Your task to perform on an android device: uninstall "Firefox Browser" Image 0: 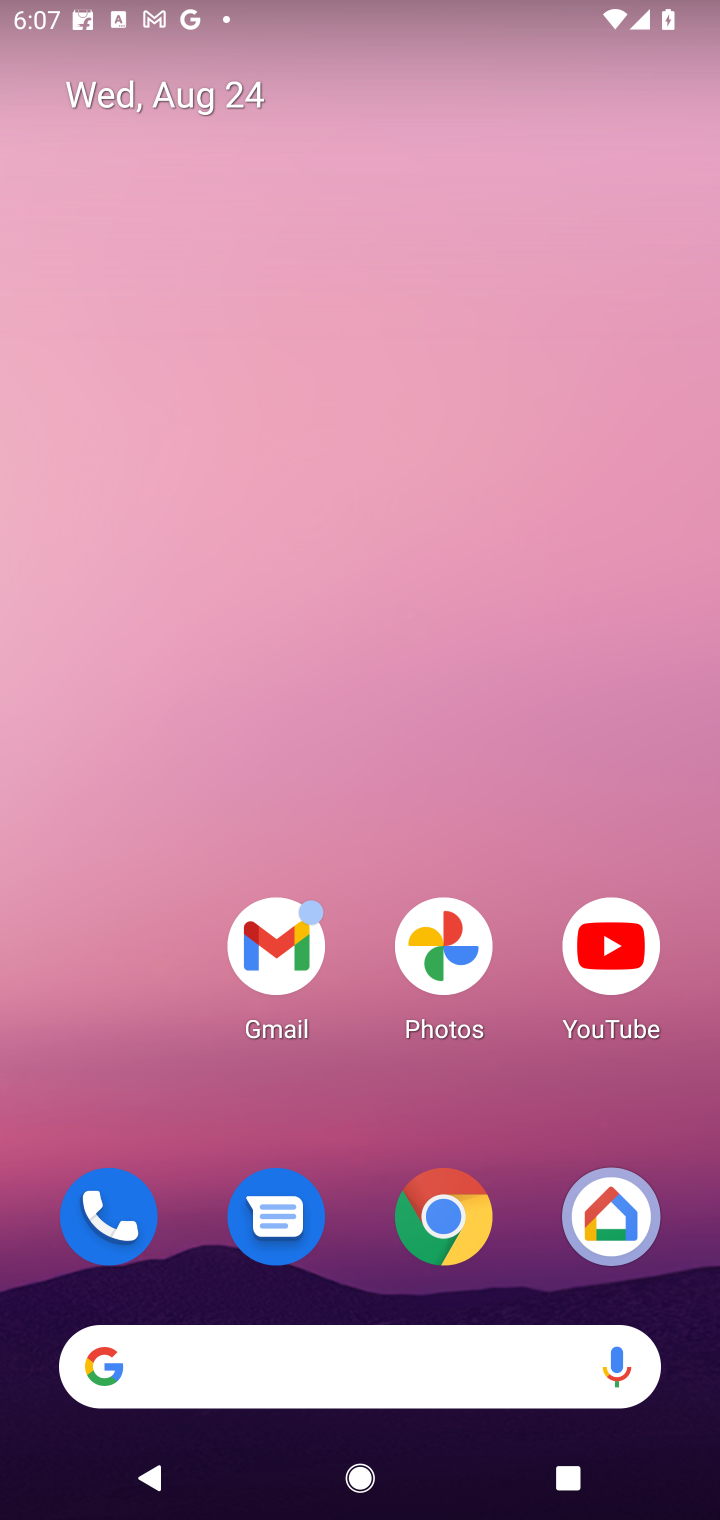
Step 0: drag from (358, 1090) to (371, 56)
Your task to perform on an android device: uninstall "Firefox Browser" Image 1: 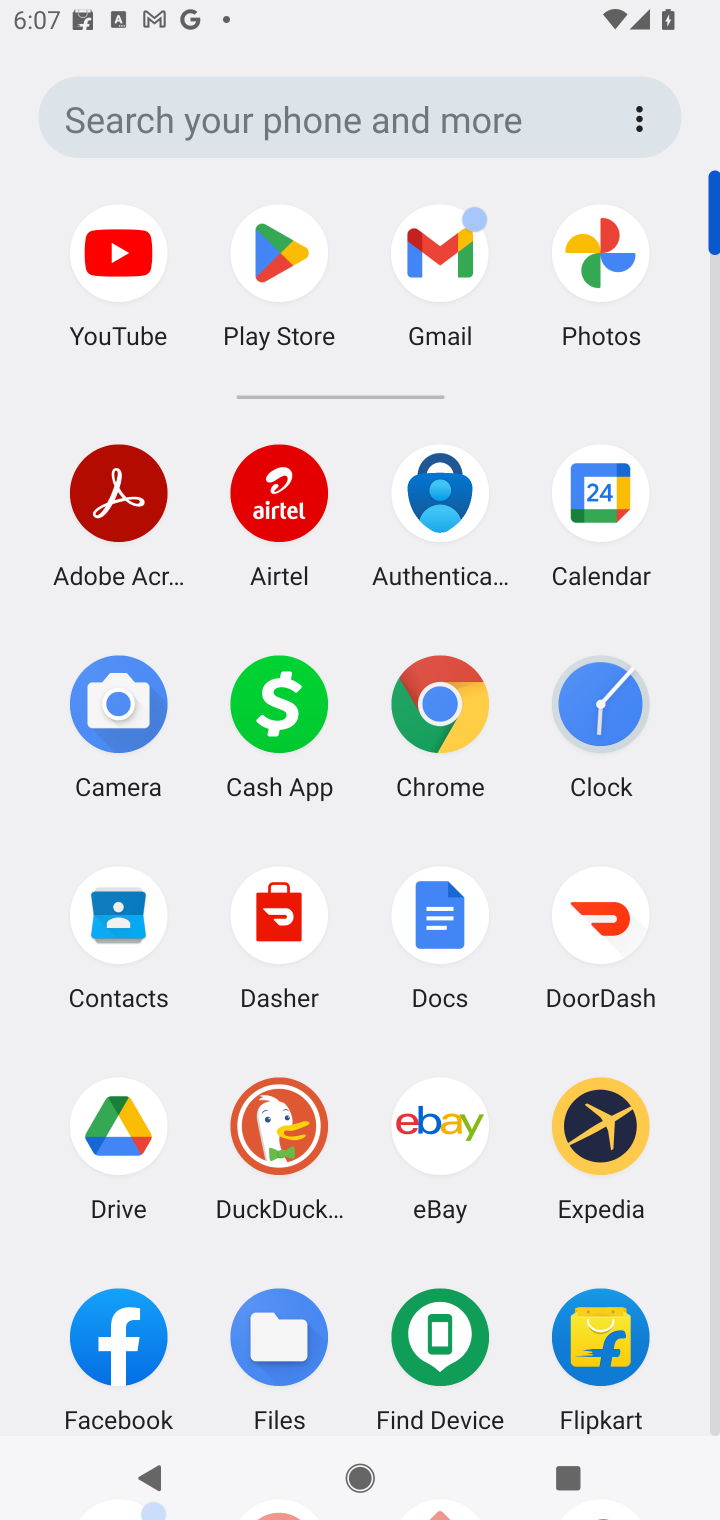
Step 1: click (258, 246)
Your task to perform on an android device: uninstall "Firefox Browser" Image 2: 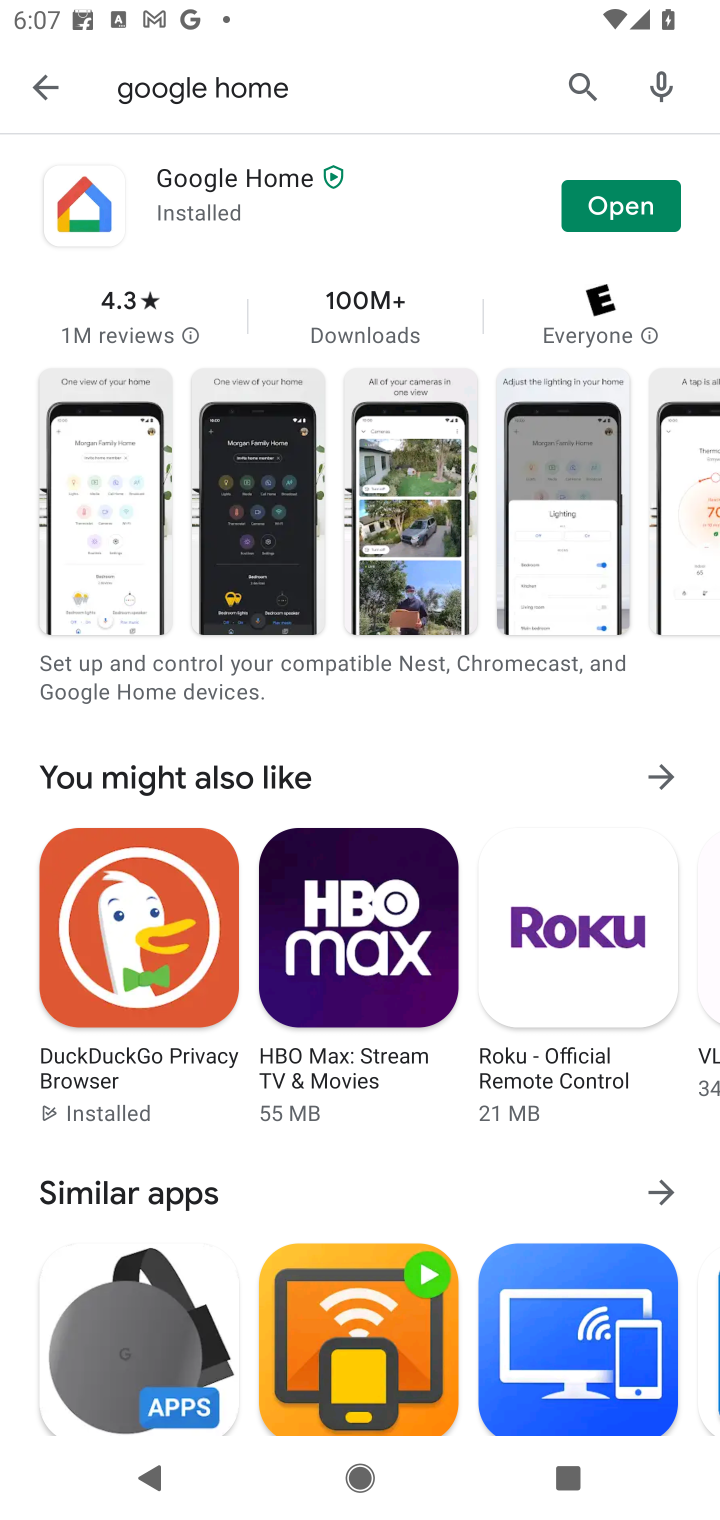
Step 2: click (575, 71)
Your task to perform on an android device: uninstall "Firefox Browser" Image 3: 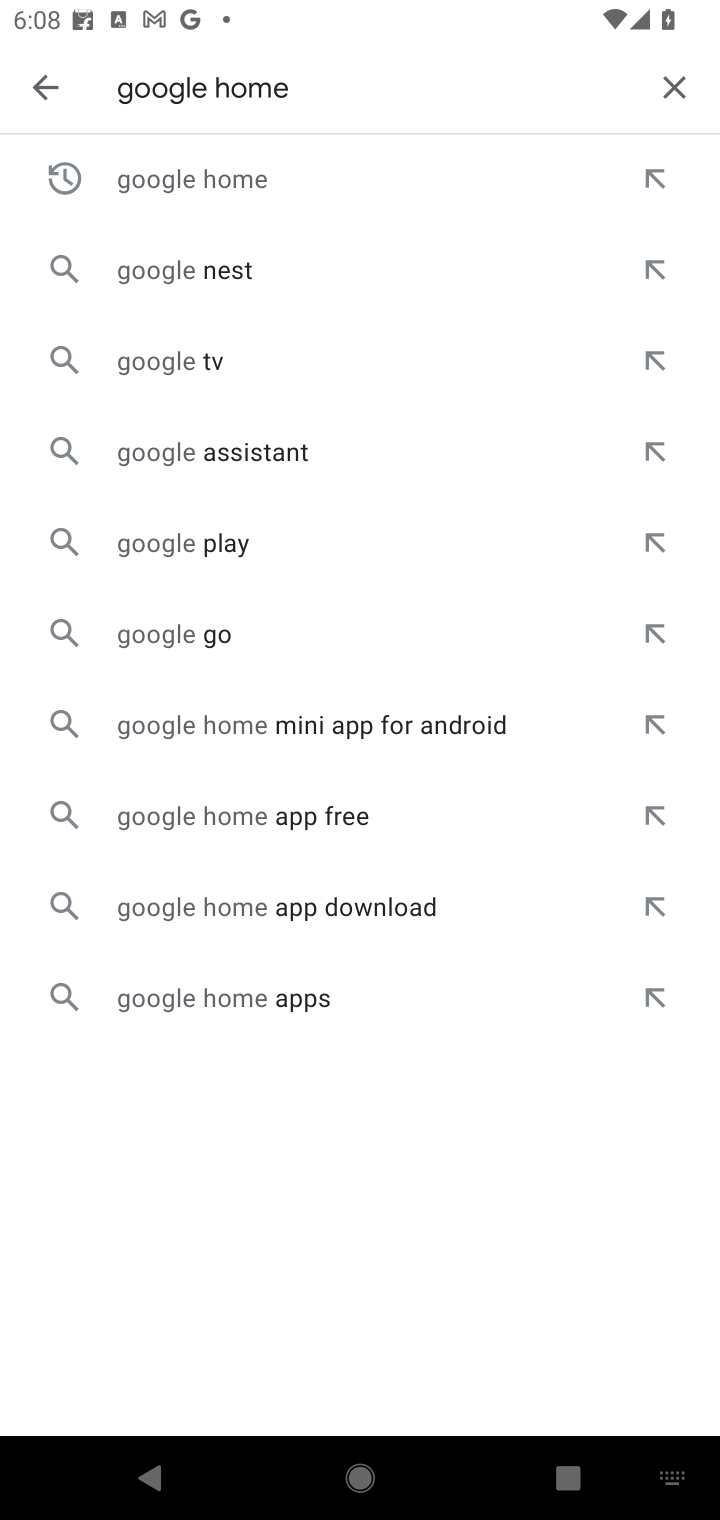
Step 3: click (656, 85)
Your task to perform on an android device: uninstall "Firefox Browser" Image 4: 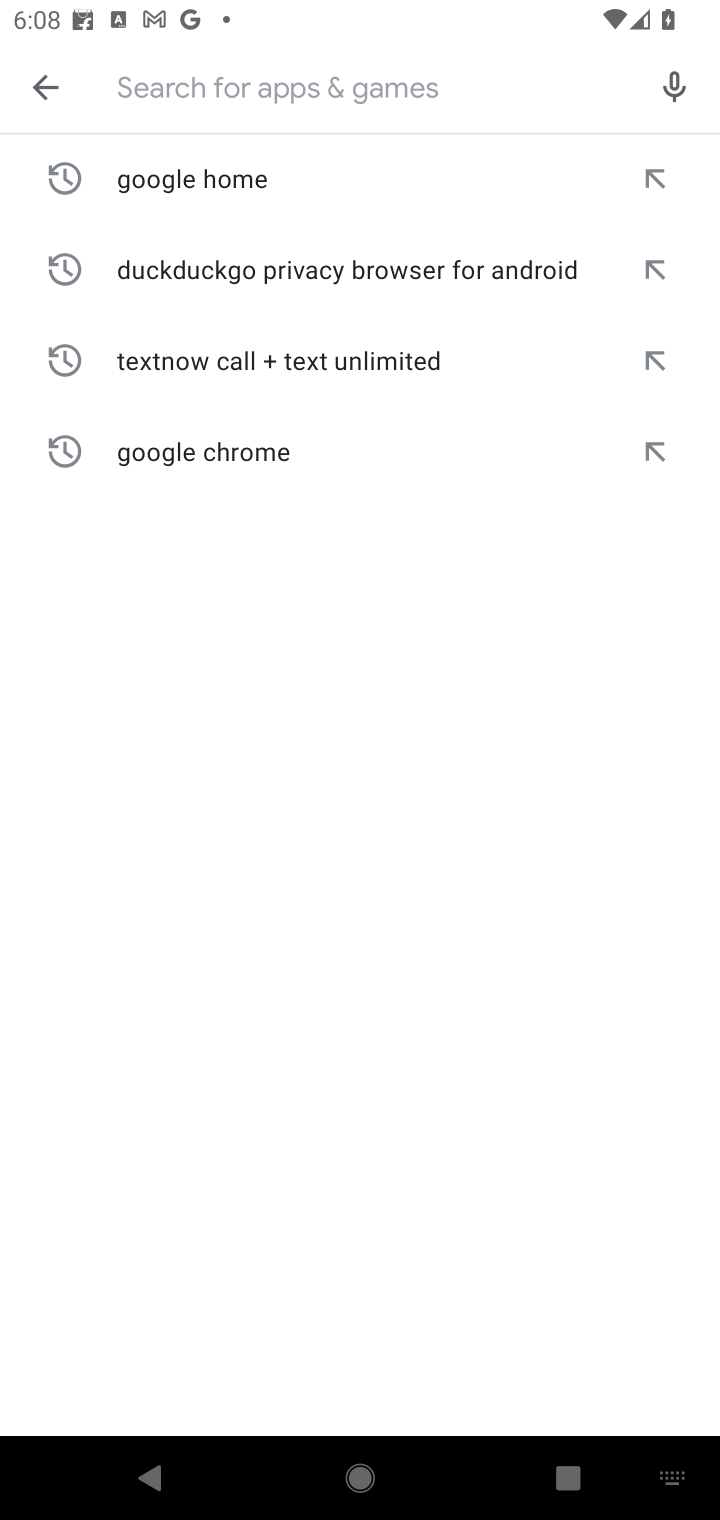
Step 4: type "Firefox Browser"
Your task to perform on an android device: uninstall "Firefox Browser" Image 5: 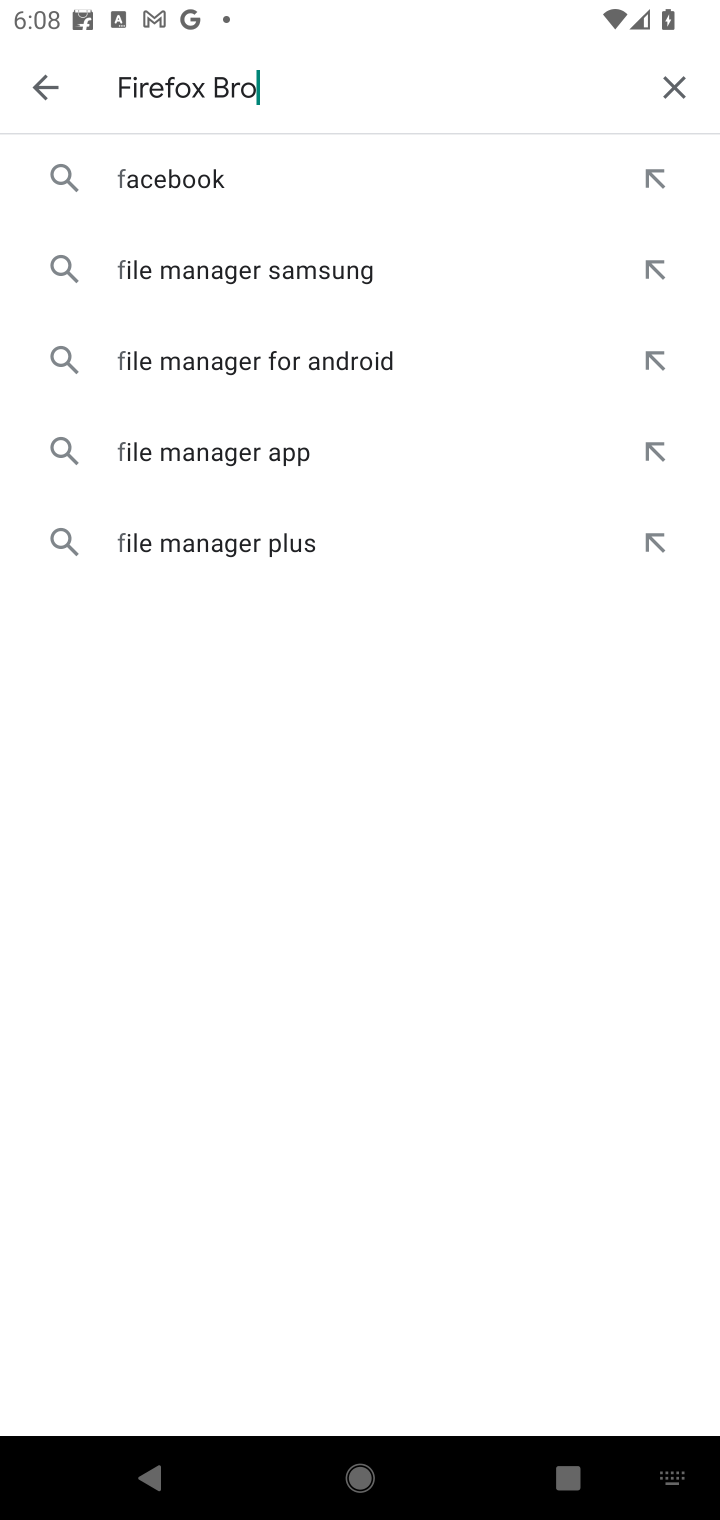
Step 5: type ""
Your task to perform on an android device: uninstall "Firefox Browser" Image 6: 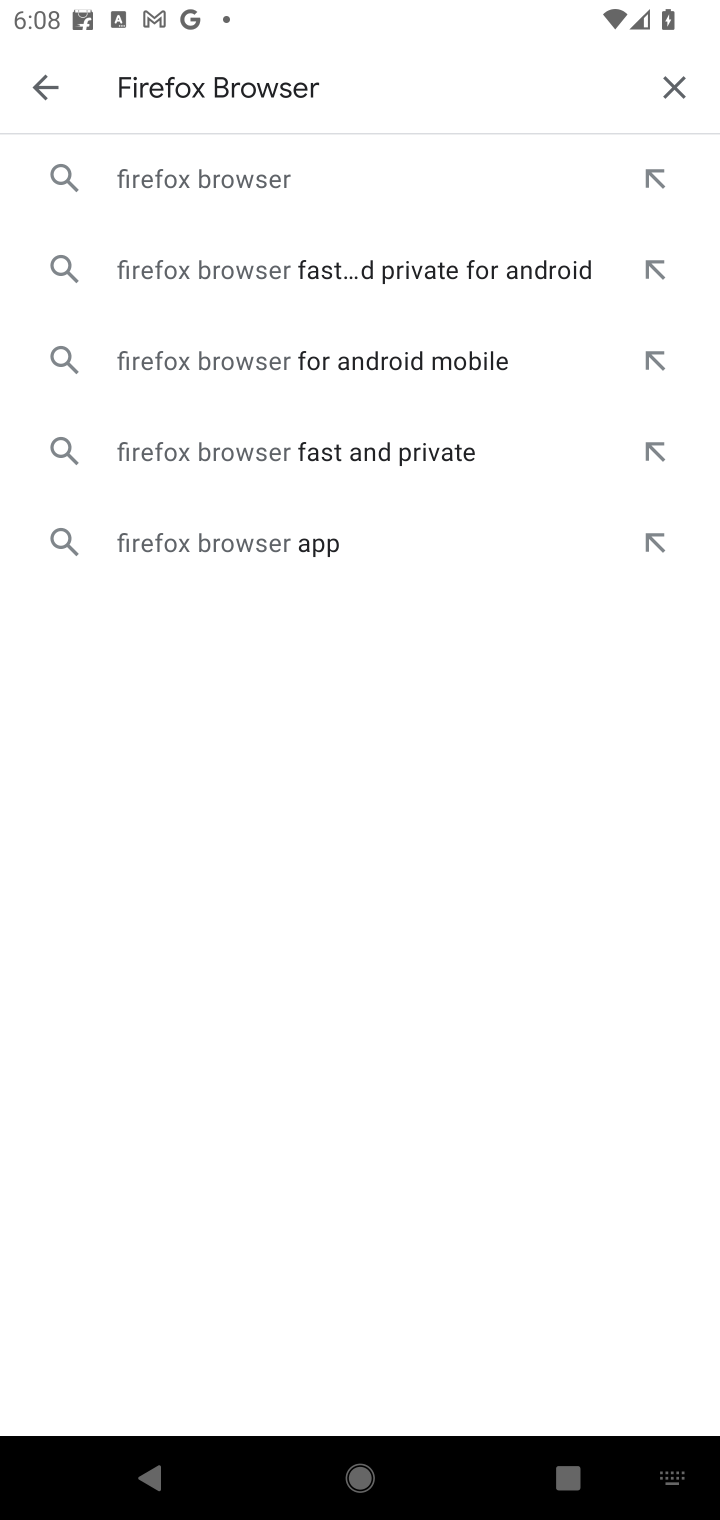
Step 6: click (294, 158)
Your task to perform on an android device: uninstall "Firefox Browser" Image 7: 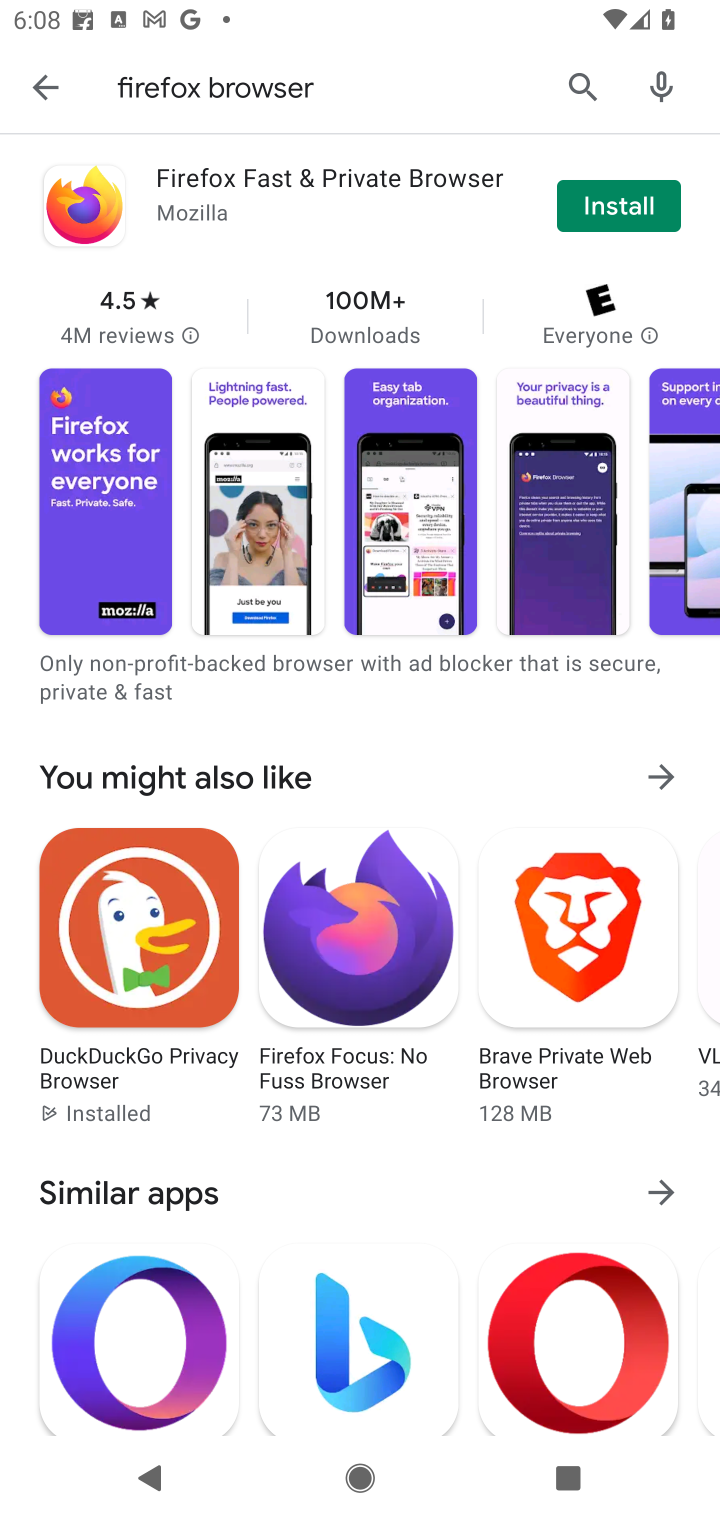
Step 7: task complete